Your task to perform on an android device: add a contact in the contacts app Image 0: 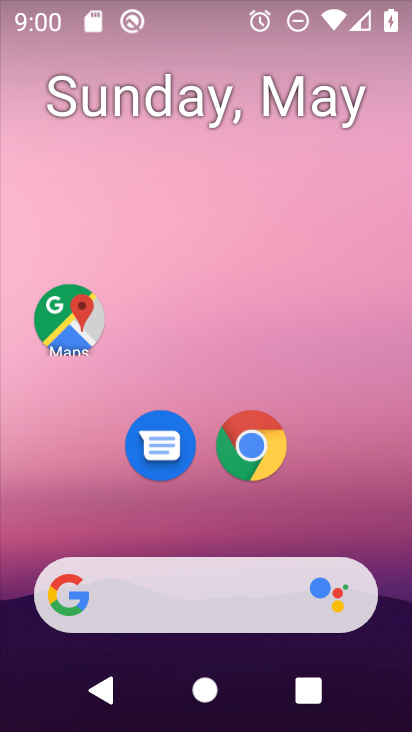
Step 0: drag from (219, 643) to (235, 111)
Your task to perform on an android device: add a contact in the contacts app Image 1: 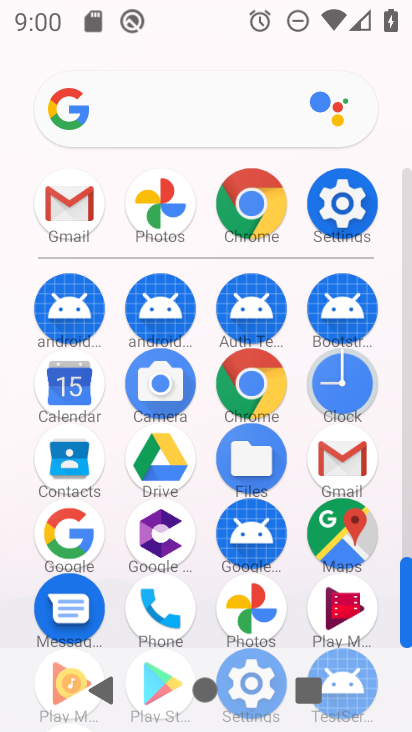
Step 1: click (68, 474)
Your task to perform on an android device: add a contact in the contacts app Image 2: 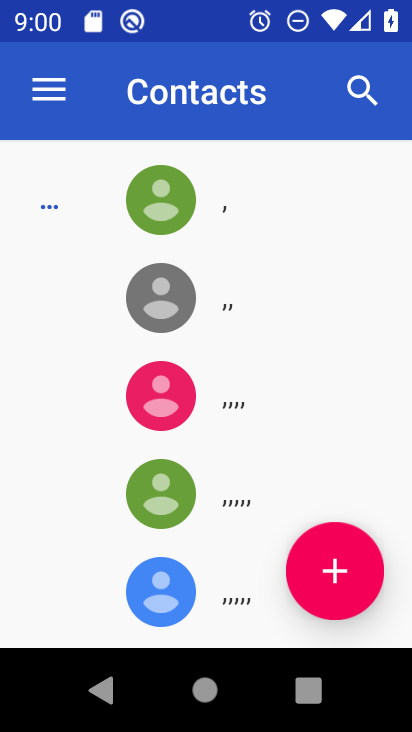
Step 2: click (321, 571)
Your task to perform on an android device: add a contact in the contacts app Image 3: 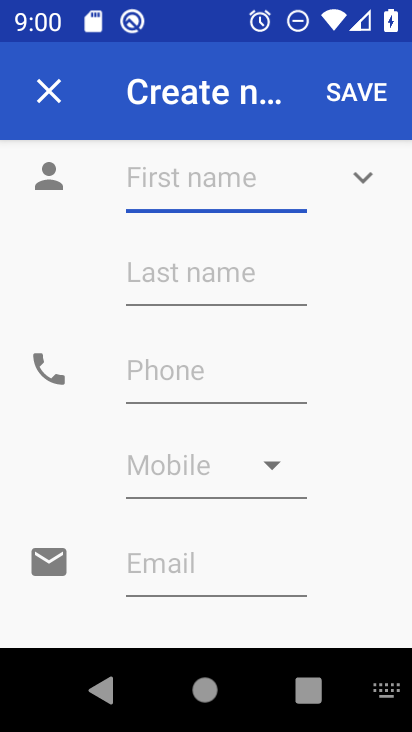
Step 3: type "jgj"
Your task to perform on an android device: add a contact in the contacts app Image 4: 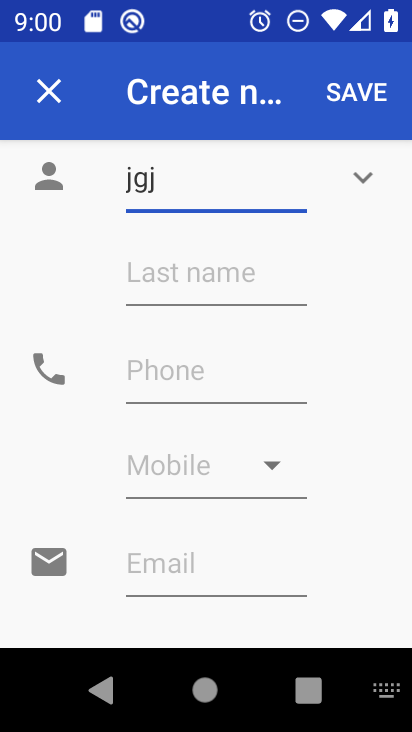
Step 4: click (181, 386)
Your task to perform on an android device: add a contact in the contacts app Image 5: 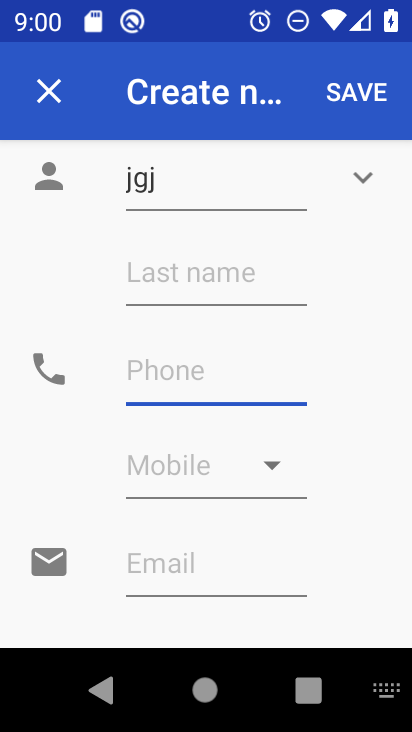
Step 5: type "897867866"
Your task to perform on an android device: add a contact in the contacts app Image 6: 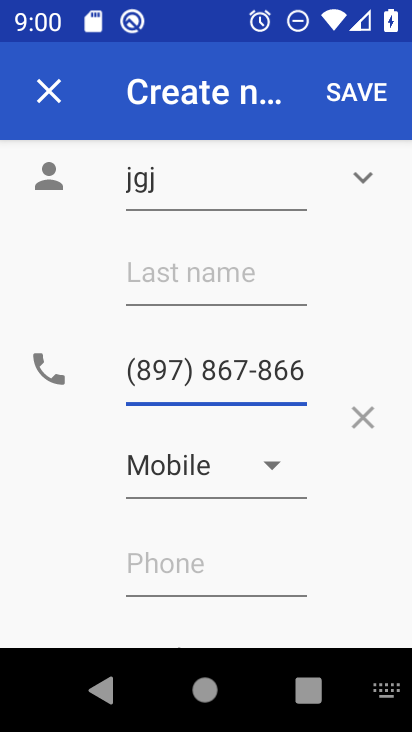
Step 6: click (336, 103)
Your task to perform on an android device: add a contact in the contacts app Image 7: 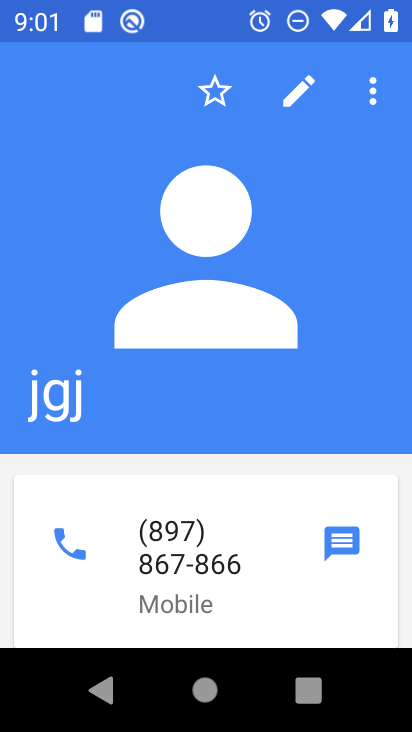
Step 7: task complete